Your task to perform on an android device: Go to privacy settings Image 0: 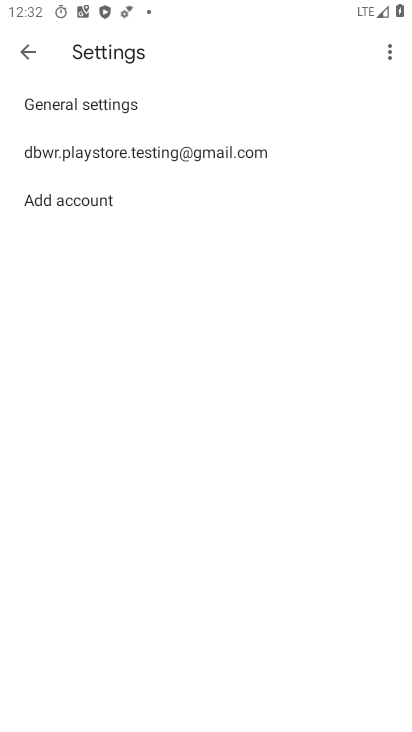
Step 0: press home button
Your task to perform on an android device: Go to privacy settings Image 1: 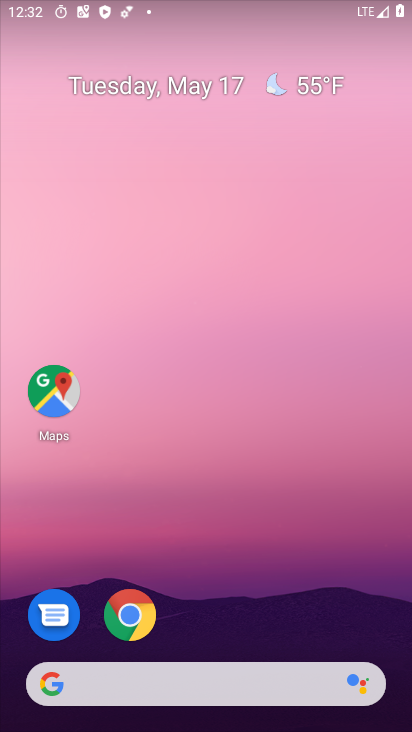
Step 1: drag from (375, 552) to (367, 474)
Your task to perform on an android device: Go to privacy settings Image 2: 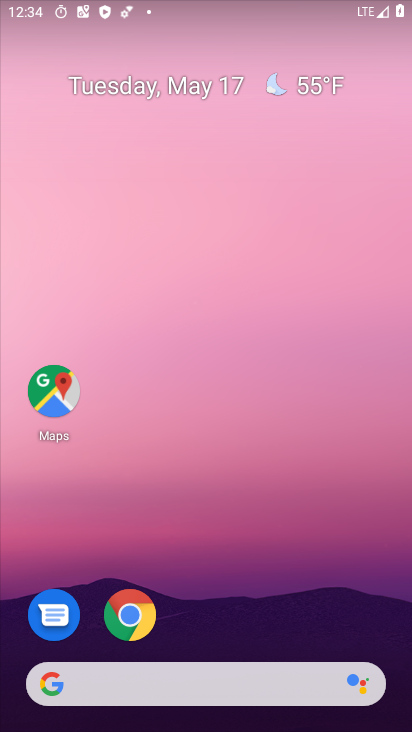
Step 2: drag from (308, 584) to (277, 94)
Your task to perform on an android device: Go to privacy settings Image 3: 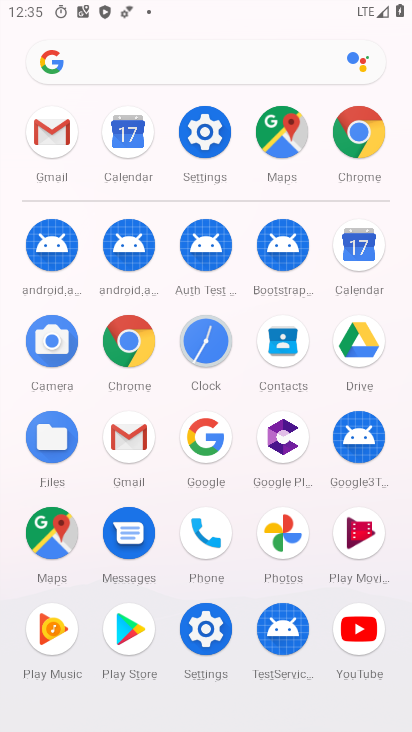
Step 3: click (208, 649)
Your task to perform on an android device: Go to privacy settings Image 4: 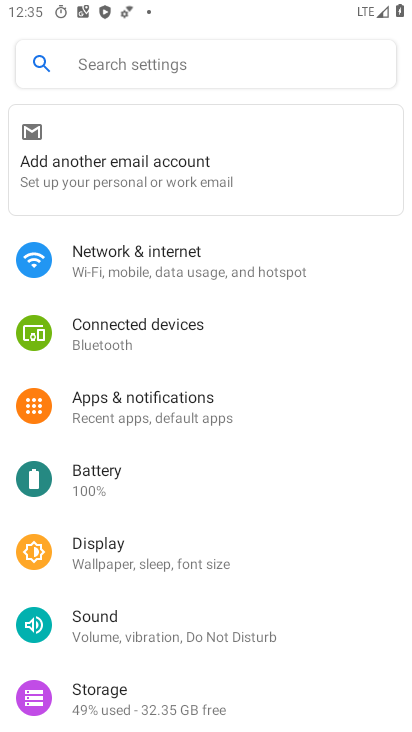
Step 4: click (93, 673)
Your task to perform on an android device: Go to privacy settings Image 5: 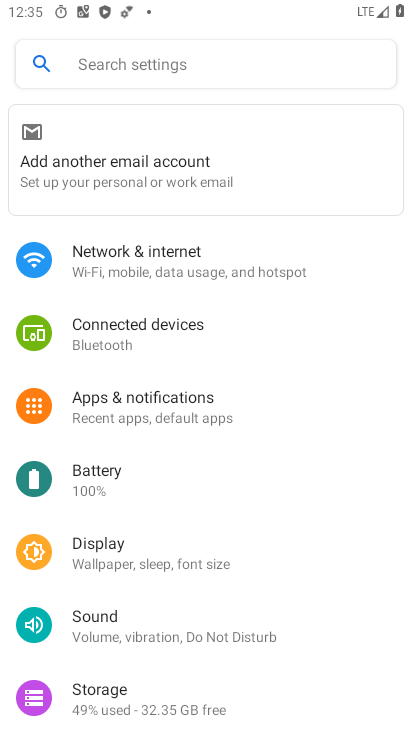
Step 5: drag from (90, 217) to (73, 691)
Your task to perform on an android device: Go to privacy settings Image 6: 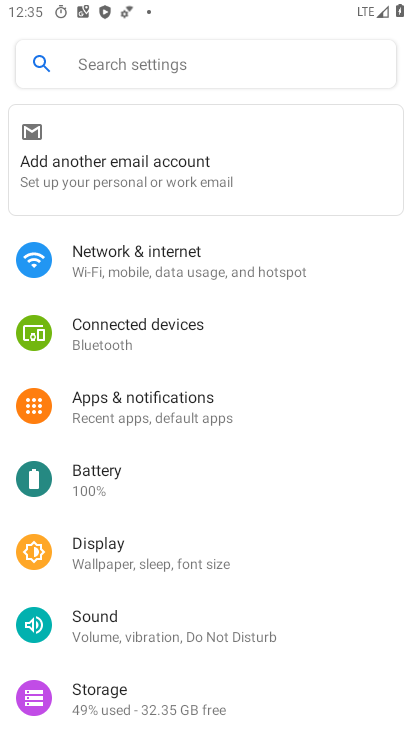
Step 6: click (66, 692)
Your task to perform on an android device: Go to privacy settings Image 7: 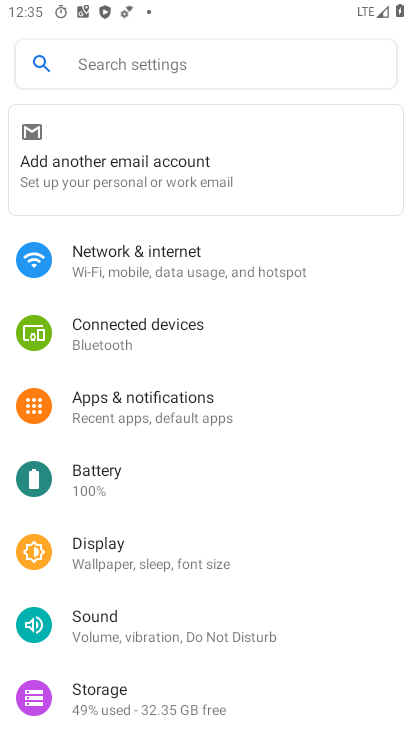
Step 7: drag from (75, 389) to (65, 693)
Your task to perform on an android device: Go to privacy settings Image 8: 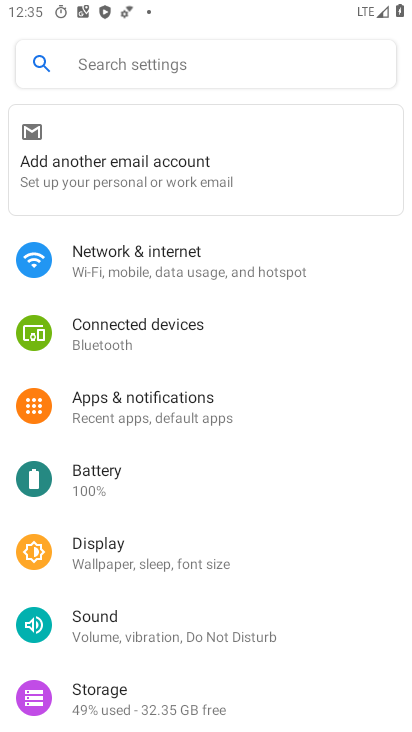
Step 8: drag from (95, 445) to (65, 696)
Your task to perform on an android device: Go to privacy settings Image 9: 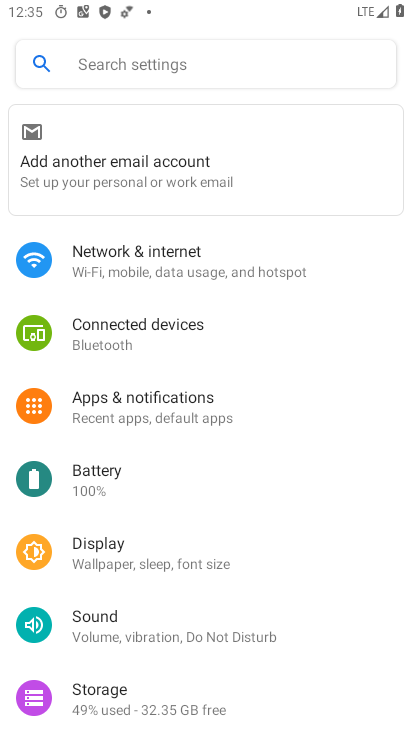
Step 9: drag from (257, 618) to (275, 171)
Your task to perform on an android device: Go to privacy settings Image 10: 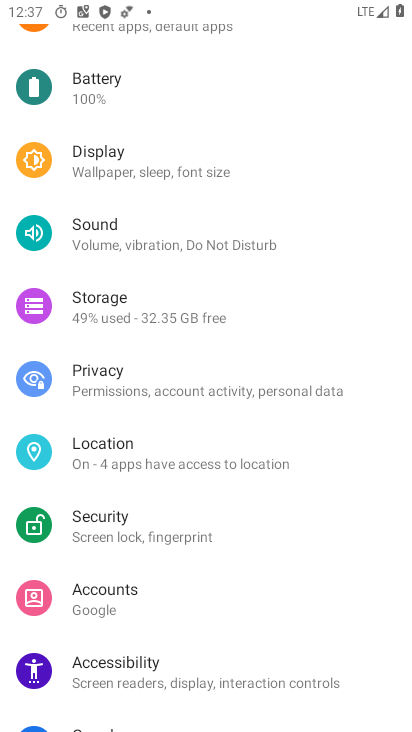
Step 10: click (113, 371)
Your task to perform on an android device: Go to privacy settings Image 11: 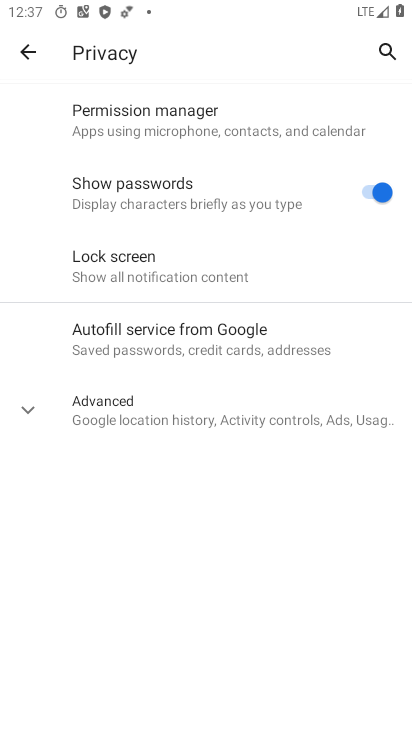
Step 11: task complete